Your task to perform on an android device: Open wifi settings Image 0: 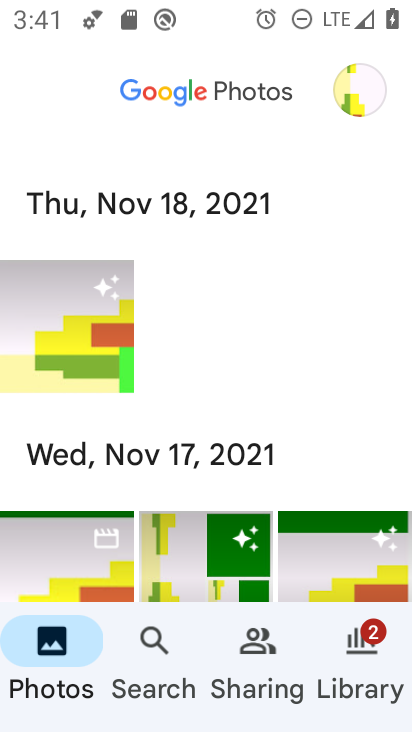
Step 0: press home button
Your task to perform on an android device: Open wifi settings Image 1: 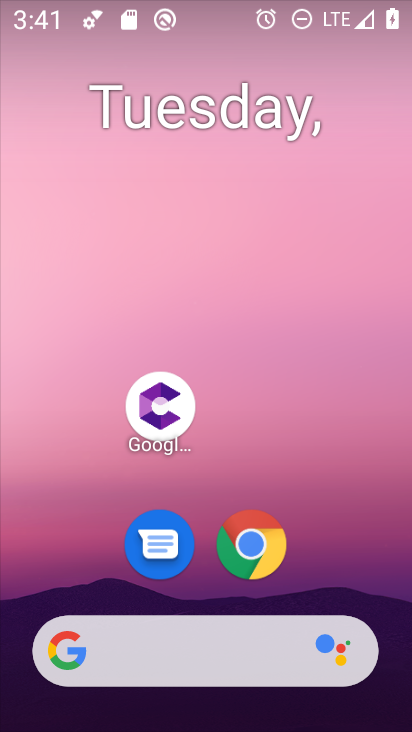
Step 1: drag from (365, 568) to (364, 98)
Your task to perform on an android device: Open wifi settings Image 2: 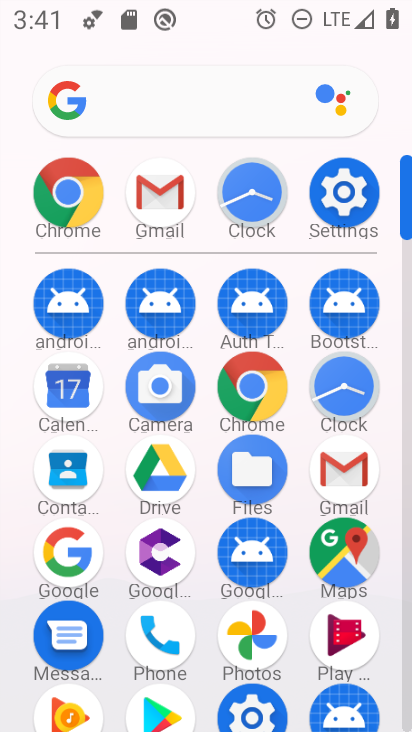
Step 2: click (341, 191)
Your task to perform on an android device: Open wifi settings Image 3: 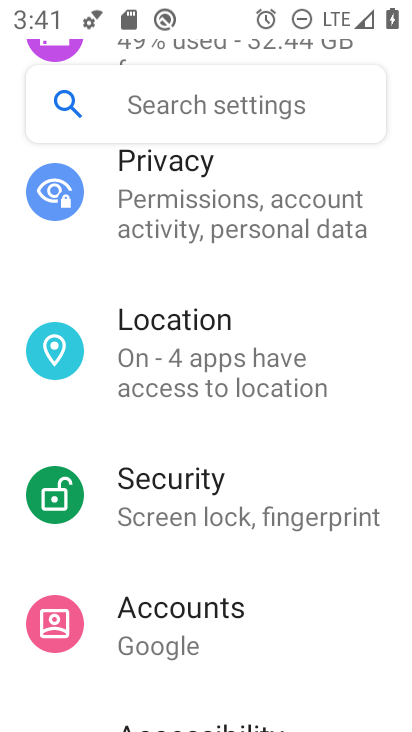
Step 3: drag from (336, 608) to (355, 411)
Your task to perform on an android device: Open wifi settings Image 4: 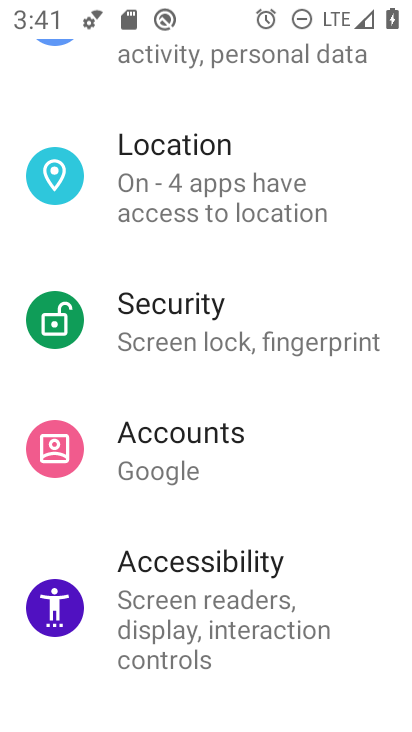
Step 4: drag from (324, 606) to (332, 500)
Your task to perform on an android device: Open wifi settings Image 5: 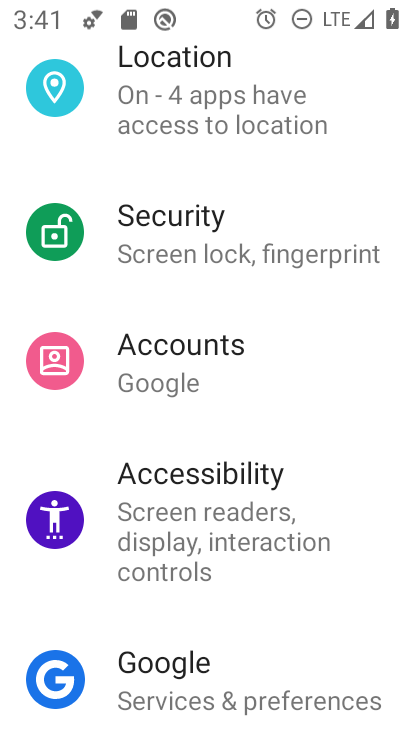
Step 5: drag from (314, 616) to (341, 479)
Your task to perform on an android device: Open wifi settings Image 6: 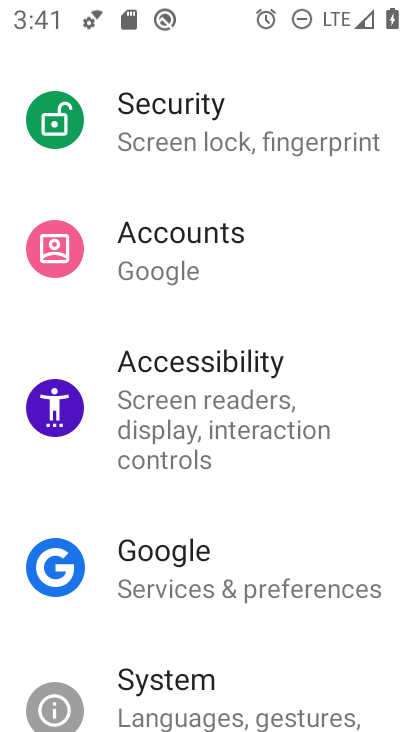
Step 6: drag from (291, 662) to (320, 533)
Your task to perform on an android device: Open wifi settings Image 7: 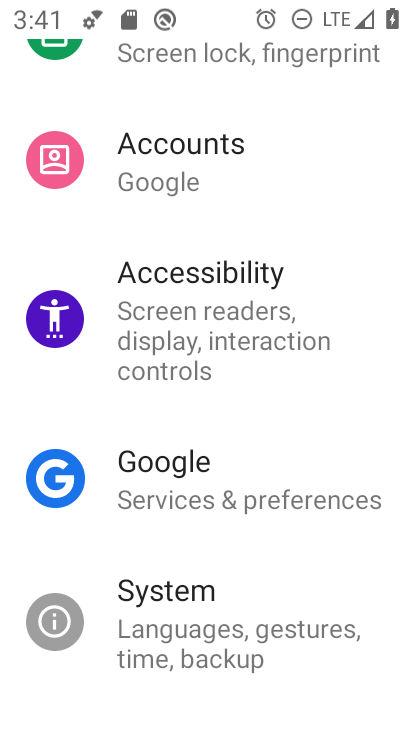
Step 7: drag from (311, 676) to (300, 545)
Your task to perform on an android device: Open wifi settings Image 8: 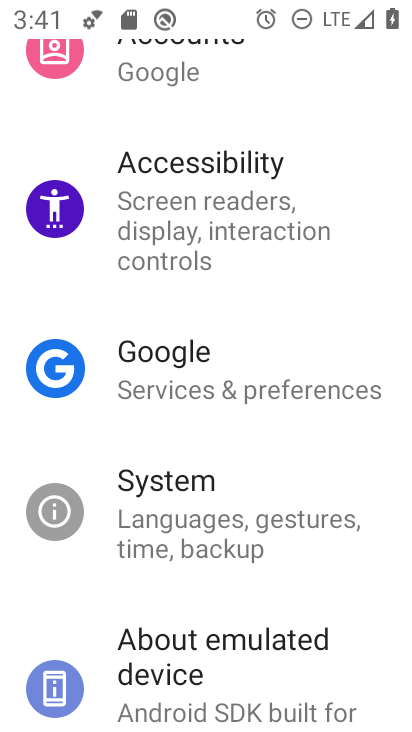
Step 8: drag from (328, 445) to (302, 581)
Your task to perform on an android device: Open wifi settings Image 9: 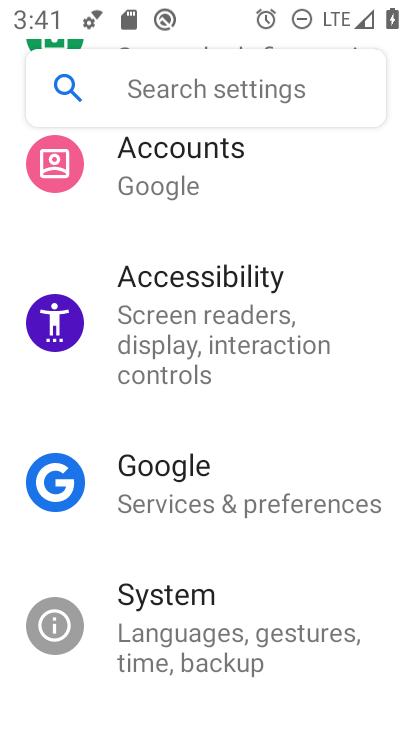
Step 9: drag from (317, 409) to (291, 566)
Your task to perform on an android device: Open wifi settings Image 10: 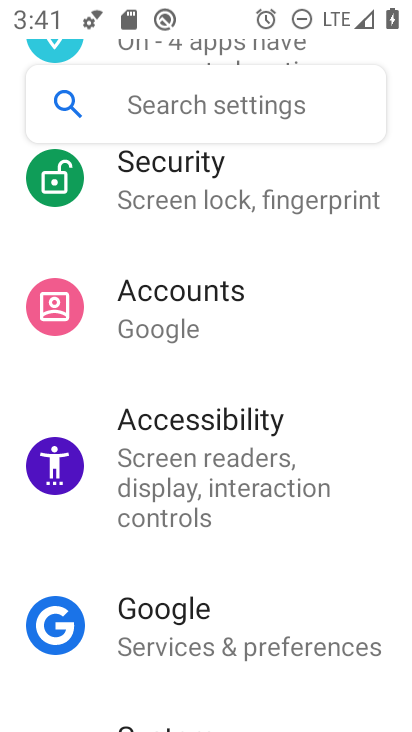
Step 10: drag from (333, 406) to (337, 543)
Your task to perform on an android device: Open wifi settings Image 11: 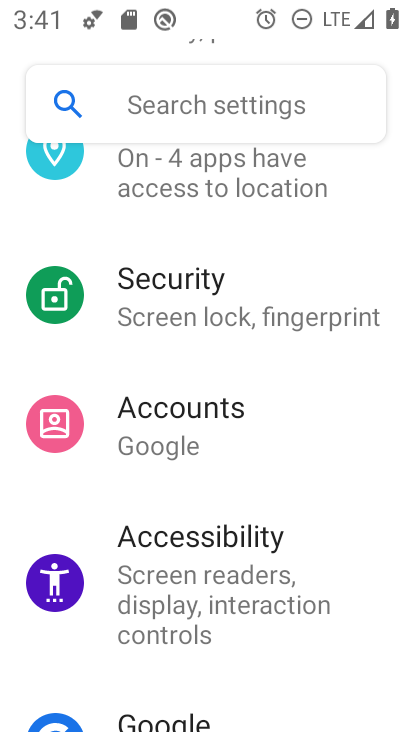
Step 11: drag from (333, 378) to (325, 513)
Your task to perform on an android device: Open wifi settings Image 12: 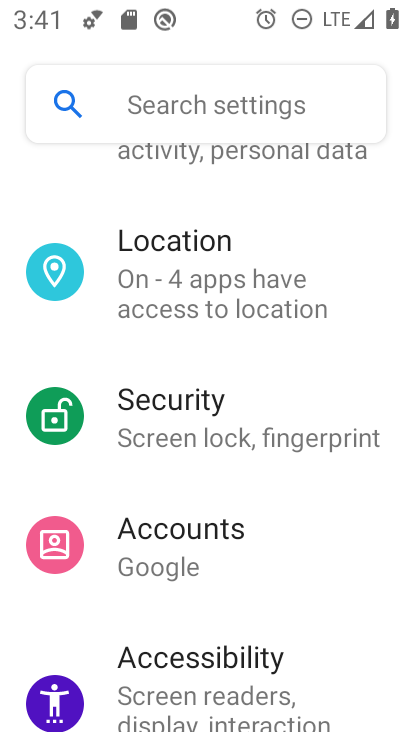
Step 12: drag from (325, 362) to (301, 500)
Your task to perform on an android device: Open wifi settings Image 13: 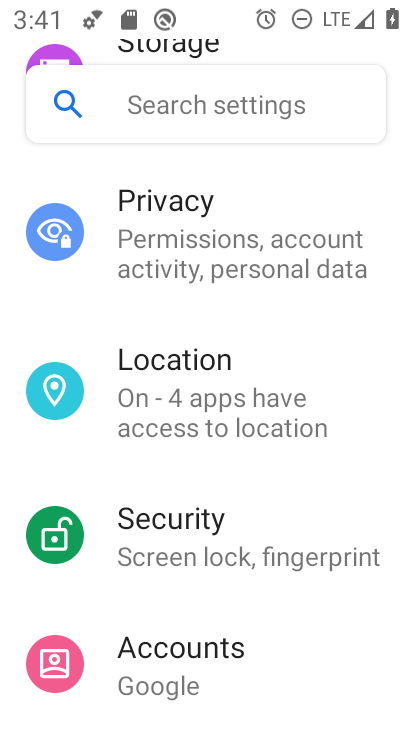
Step 13: drag from (332, 333) to (335, 499)
Your task to perform on an android device: Open wifi settings Image 14: 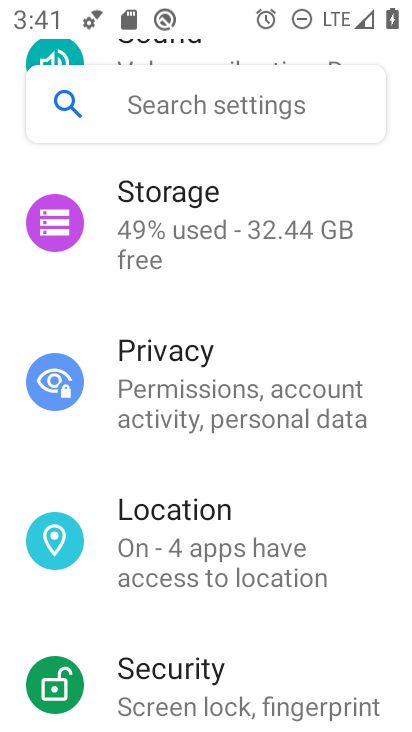
Step 14: drag from (378, 274) to (382, 438)
Your task to perform on an android device: Open wifi settings Image 15: 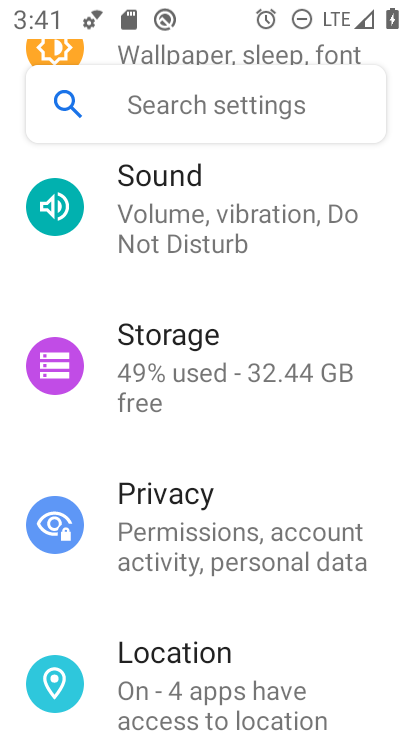
Step 15: drag from (377, 246) to (355, 386)
Your task to perform on an android device: Open wifi settings Image 16: 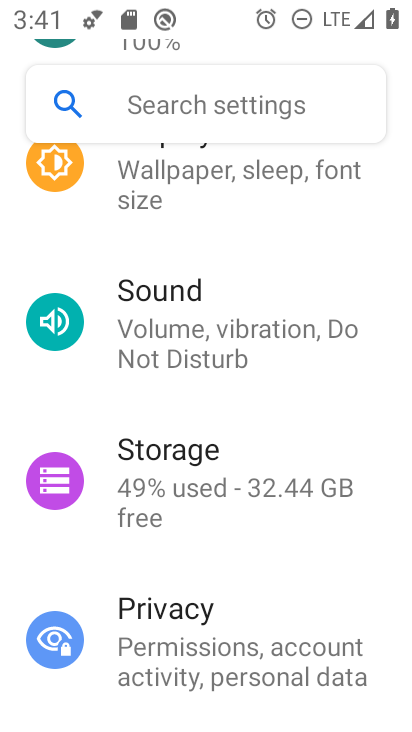
Step 16: drag from (351, 239) to (319, 371)
Your task to perform on an android device: Open wifi settings Image 17: 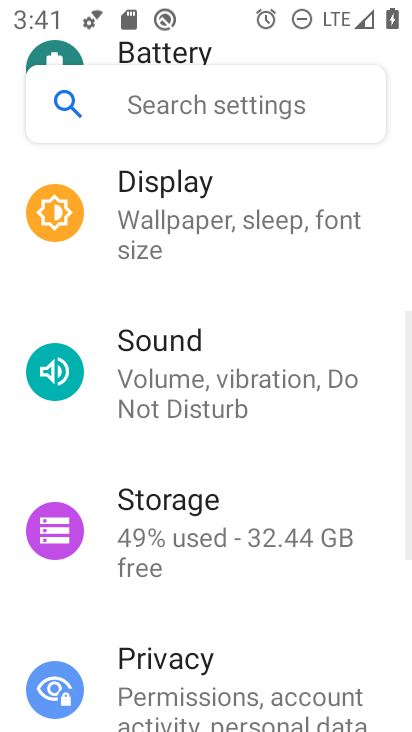
Step 17: drag from (301, 172) to (237, 384)
Your task to perform on an android device: Open wifi settings Image 18: 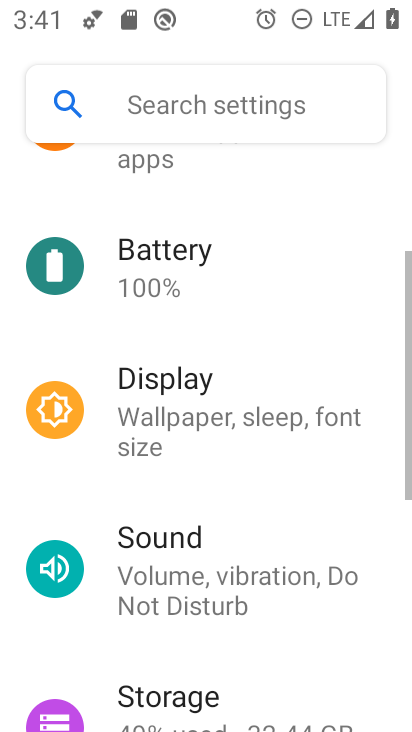
Step 18: drag from (304, 169) to (292, 311)
Your task to perform on an android device: Open wifi settings Image 19: 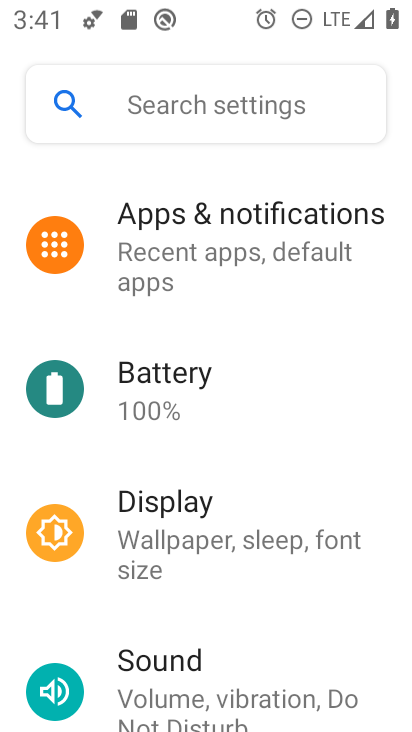
Step 19: drag from (370, 328) to (362, 364)
Your task to perform on an android device: Open wifi settings Image 20: 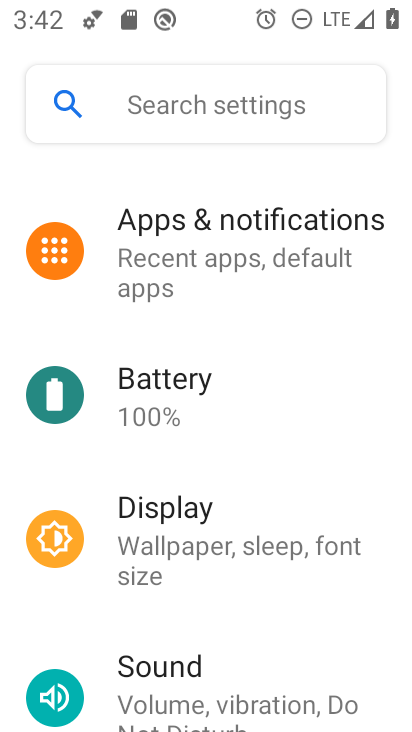
Step 20: drag from (371, 187) to (353, 422)
Your task to perform on an android device: Open wifi settings Image 21: 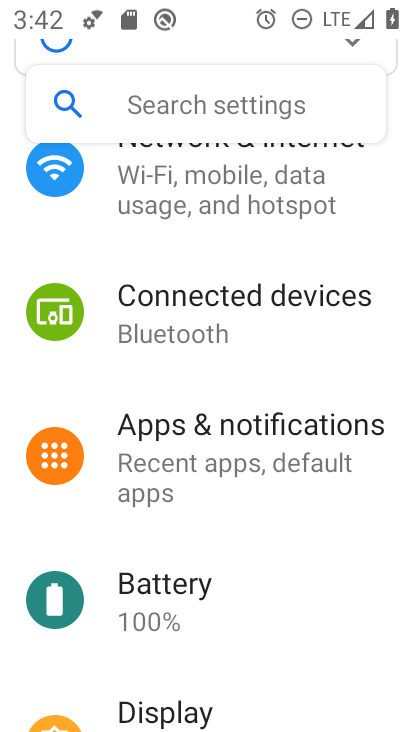
Step 21: drag from (377, 191) to (361, 389)
Your task to perform on an android device: Open wifi settings Image 22: 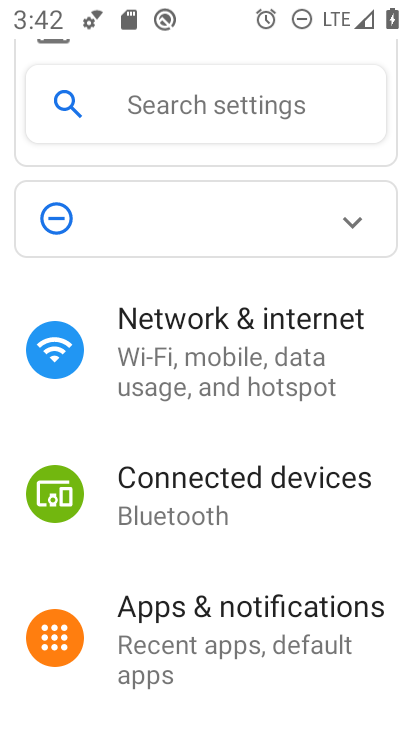
Step 22: click (274, 376)
Your task to perform on an android device: Open wifi settings Image 23: 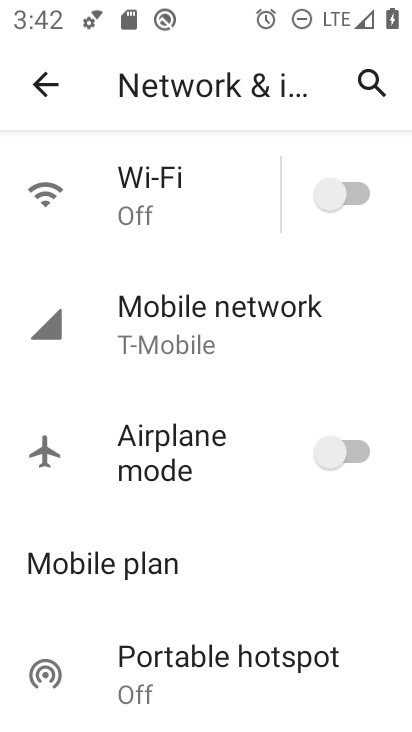
Step 23: click (186, 193)
Your task to perform on an android device: Open wifi settings Image 24: 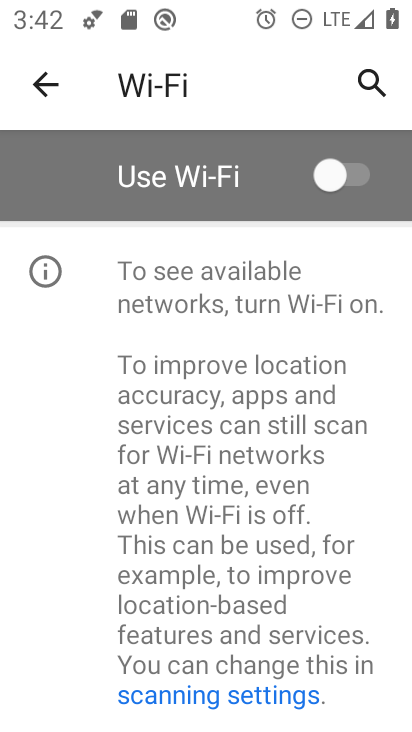
Step 24: task complete